Your task to perform on an android device: empty trash in google photos Image 0: 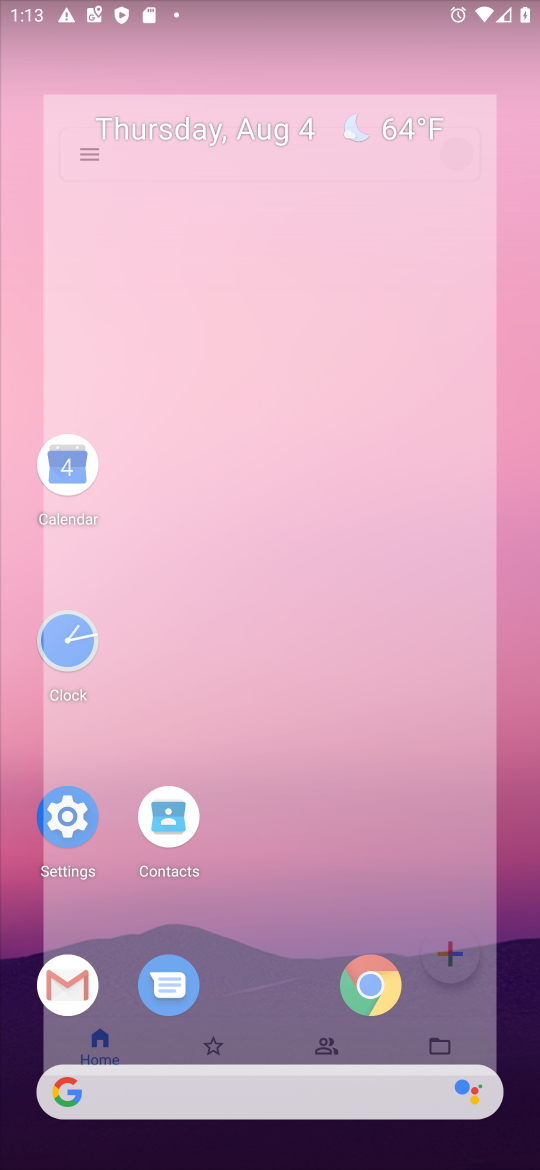
Step 0: press home button
Your task to perform on an android device: empty trash in google photos Image 1: 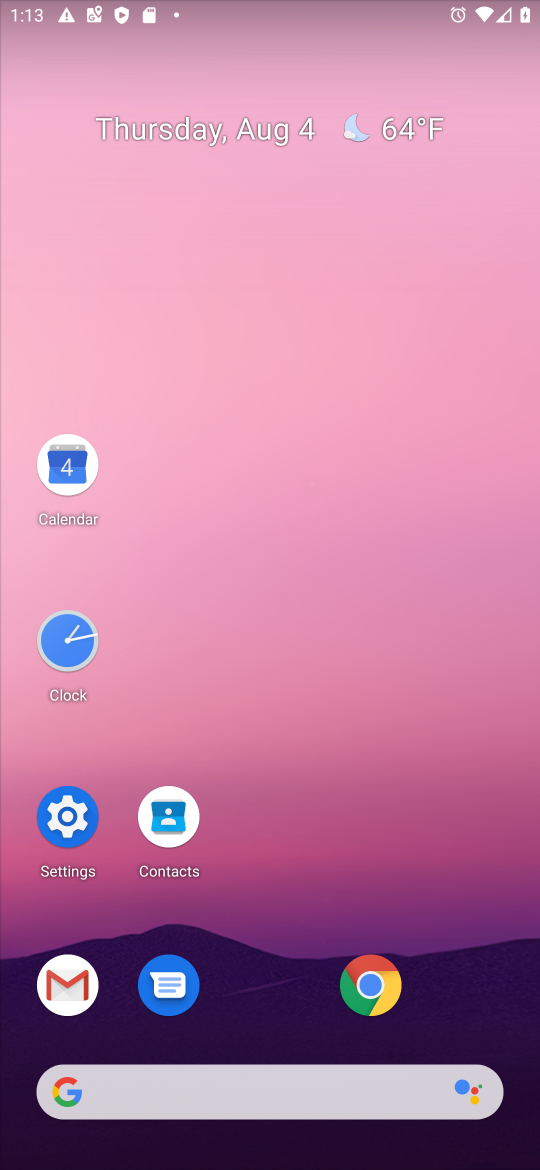
Step 1: drag from (290, 874) to (425, 32)
Your task to perform on an android device: empty trash in google photos Image 2: 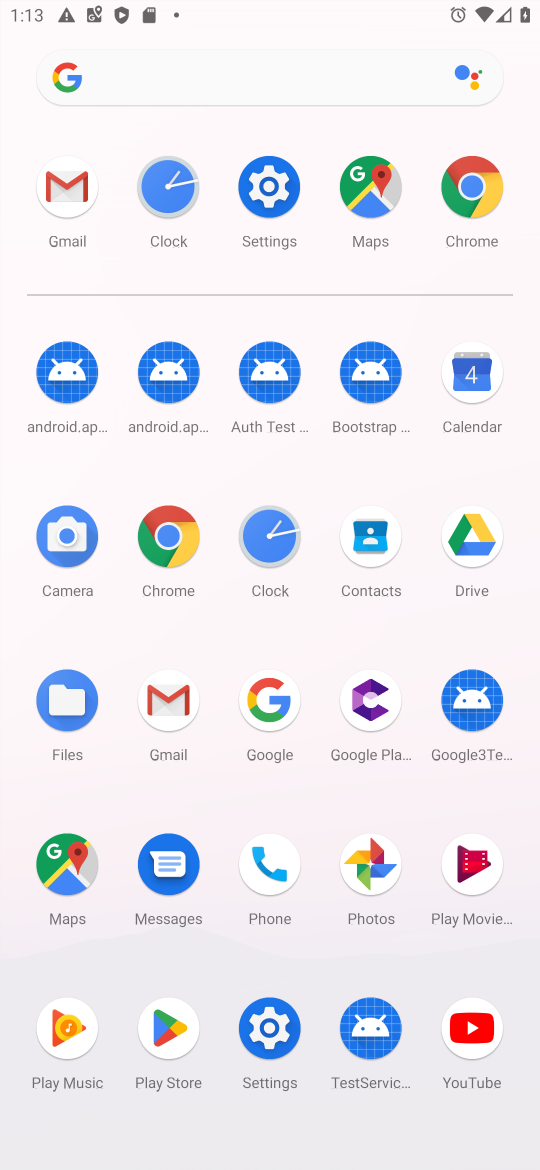
Step 2: click (376, 866)
Your task to perform on an android device: empty trash in google photos Image 3: 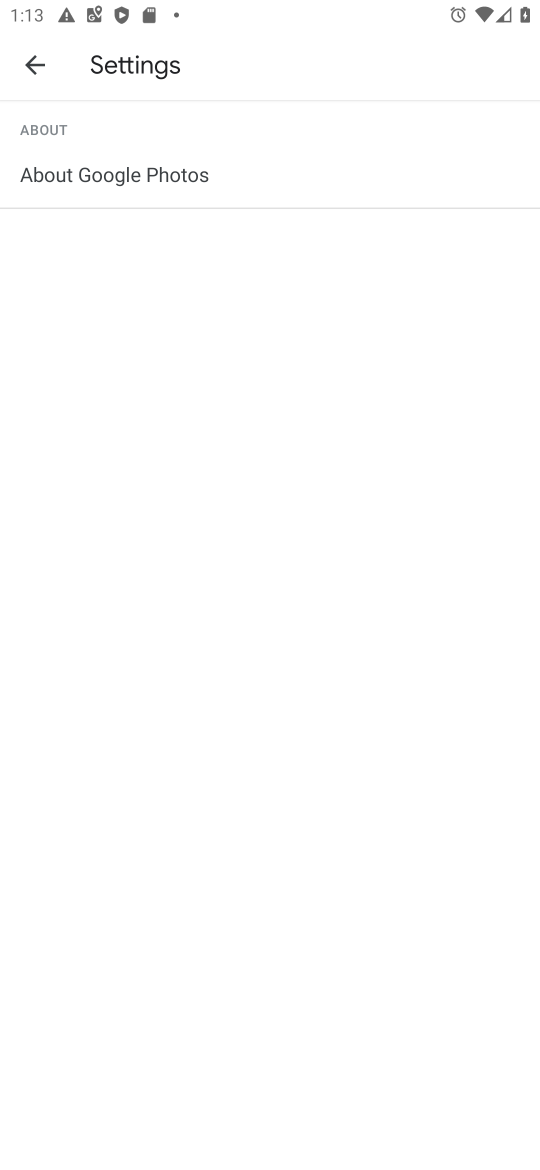
Step 3: click (29, 67)
Your task to perform on an android device: empty trash in google photos Image 4: 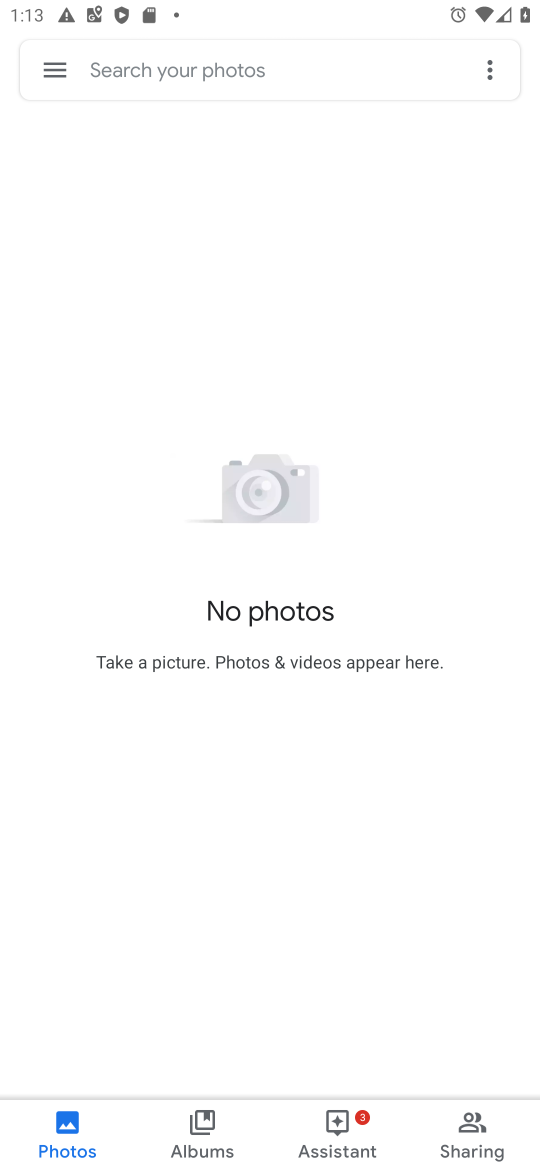
Step 4: click (57, 78)
Your task to perform on an android device: empty trash in google photos Image 5: 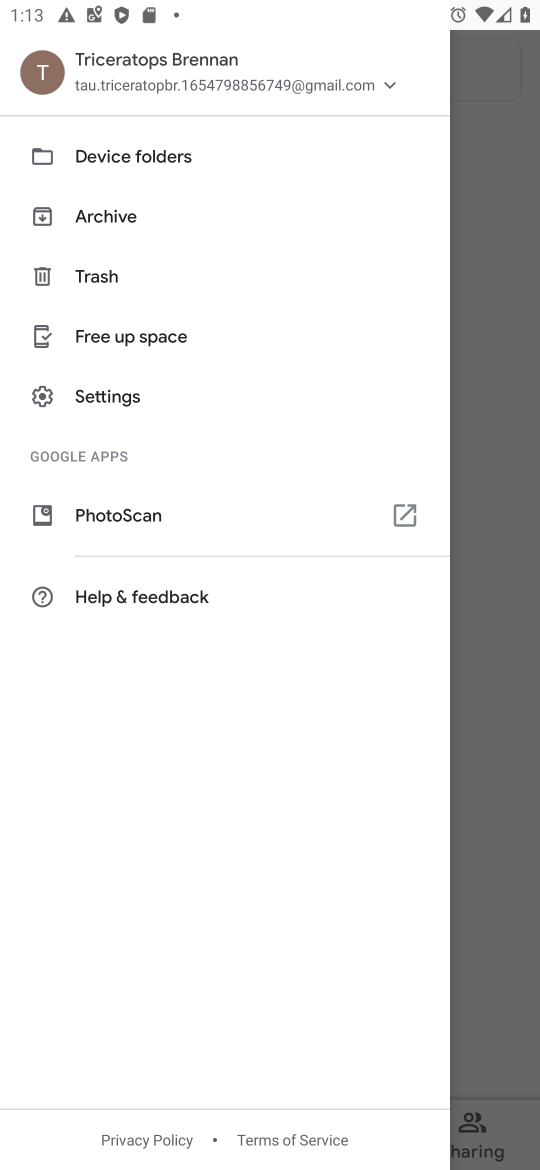
Step 5: click (87, 263)
Your task to perform on an android device: empty trash in google photos Image 6: 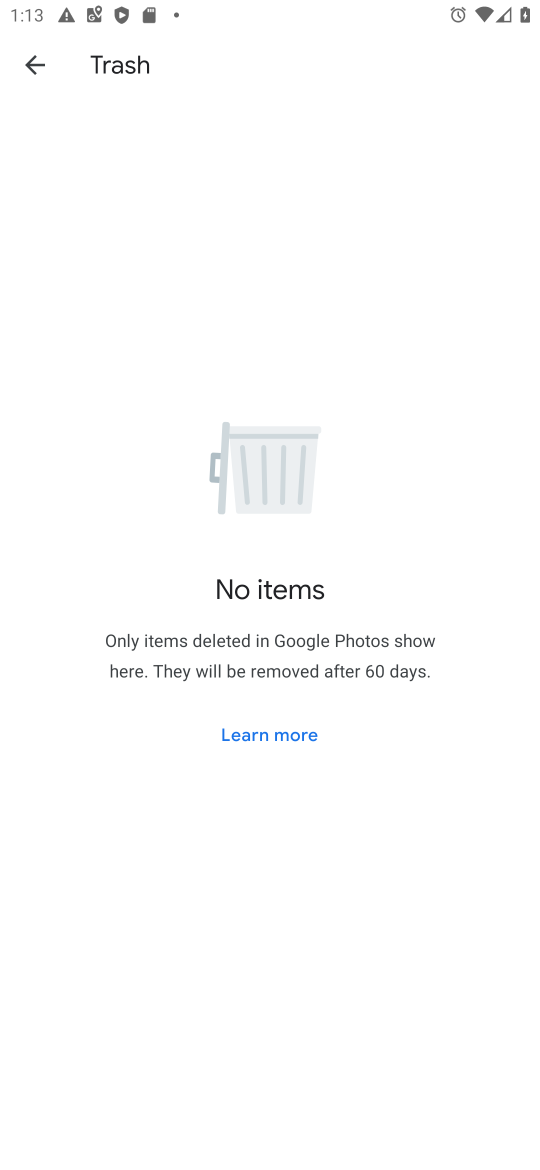
Step 6: task complete